Your task to perform on an android device: check storage Image 0: 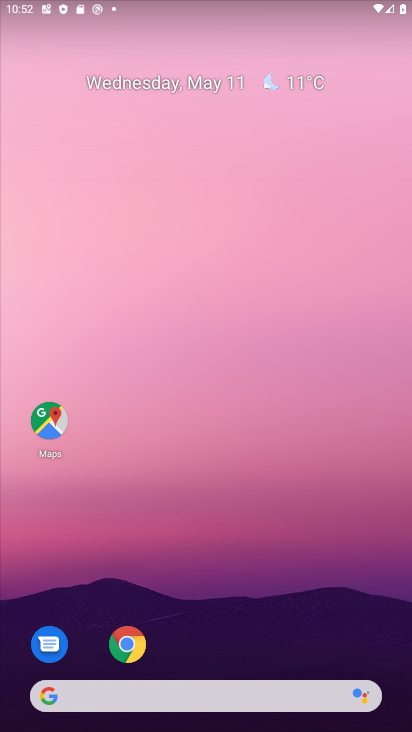
Step 0: drag from (211, 659) to (228, 106)
Your task to perform on an android device: check storage Image 1: 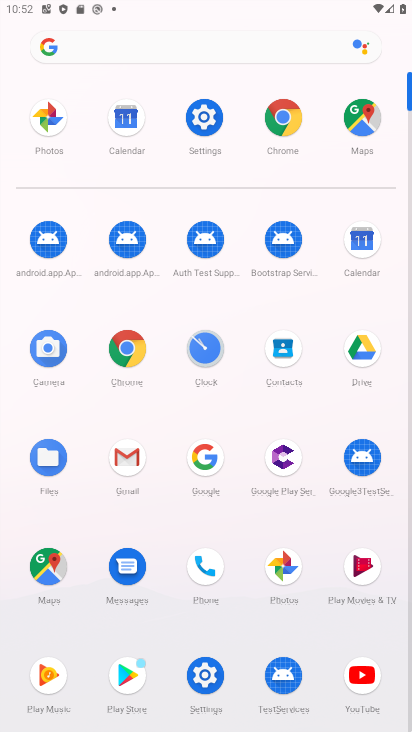
Step 1: click (204, 124)
Your task to perform on an android device: check storage Image 2: 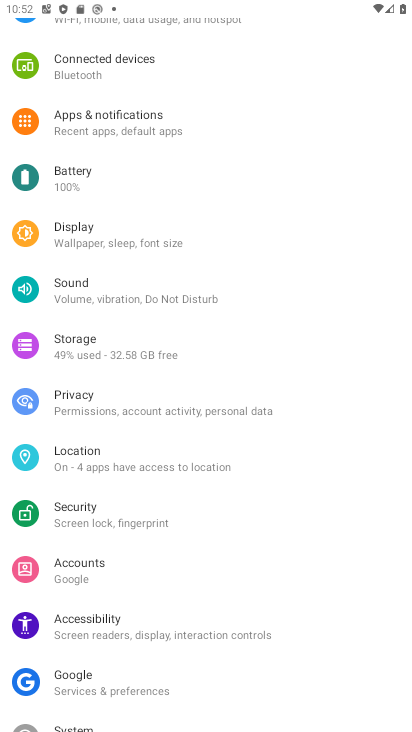
Step 2: click (108, 337)
Your task to perform on an android device: check storage Image 3: 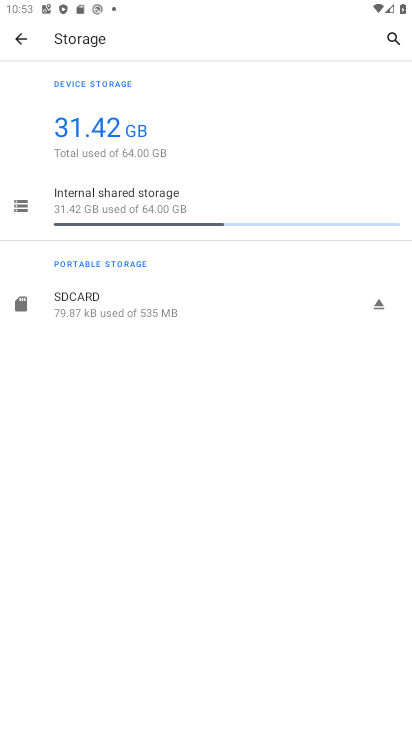
Step 3: task complete